Your task to perform on an android device: Search for the best rated wireless headphones on Amazon. Image 0: 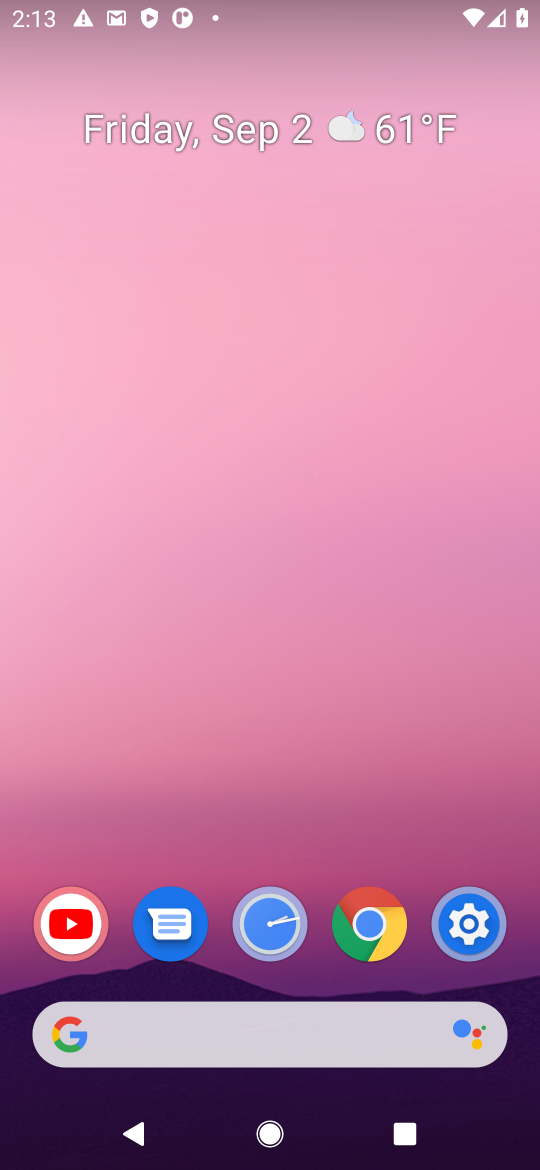
Step 0: press home button
Your task to perform on an android device: Search for the best rated wireless headphones on Amazon. Image 1: 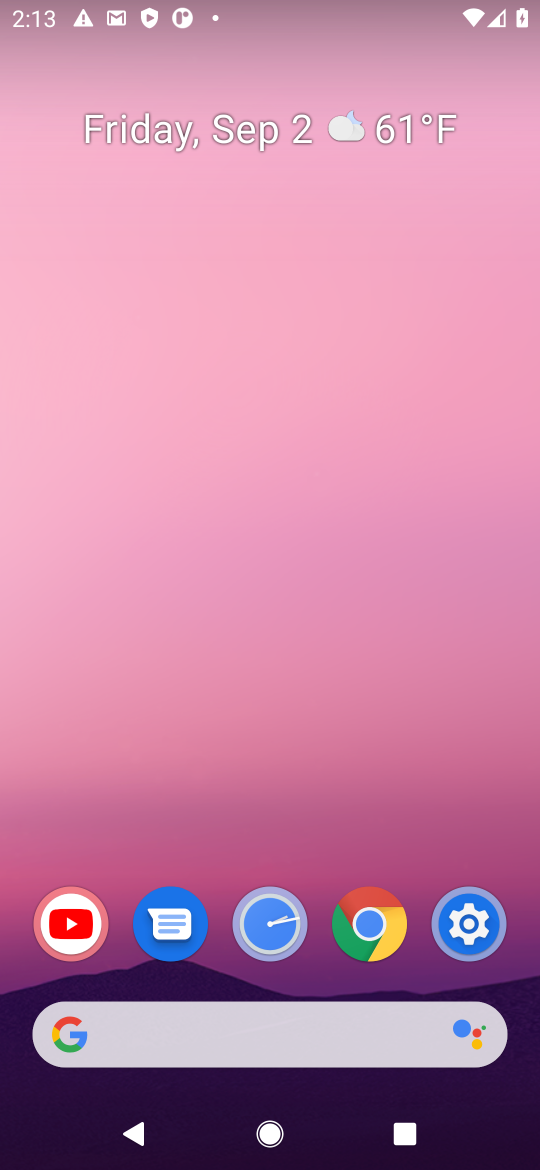
Step 1: click (399, 1037)
Your task to perform on an android device: Search for the best rated wireless headphones on Amazon. Image 2: 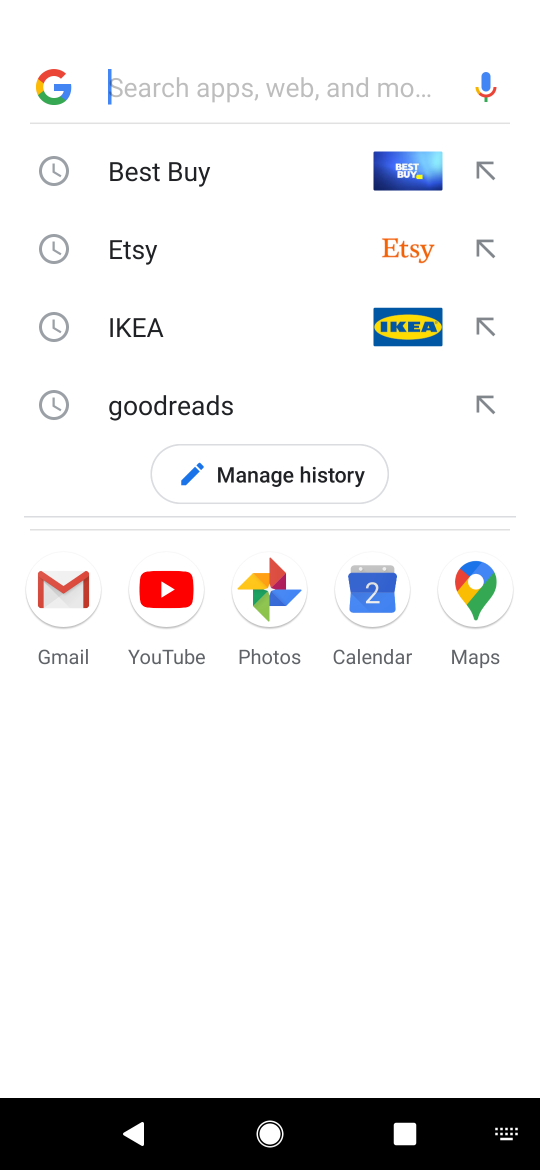
Step 2: press enter
Your task to perform on an android device: Search for the best rated wireless headphones on Amazon. Image 3: 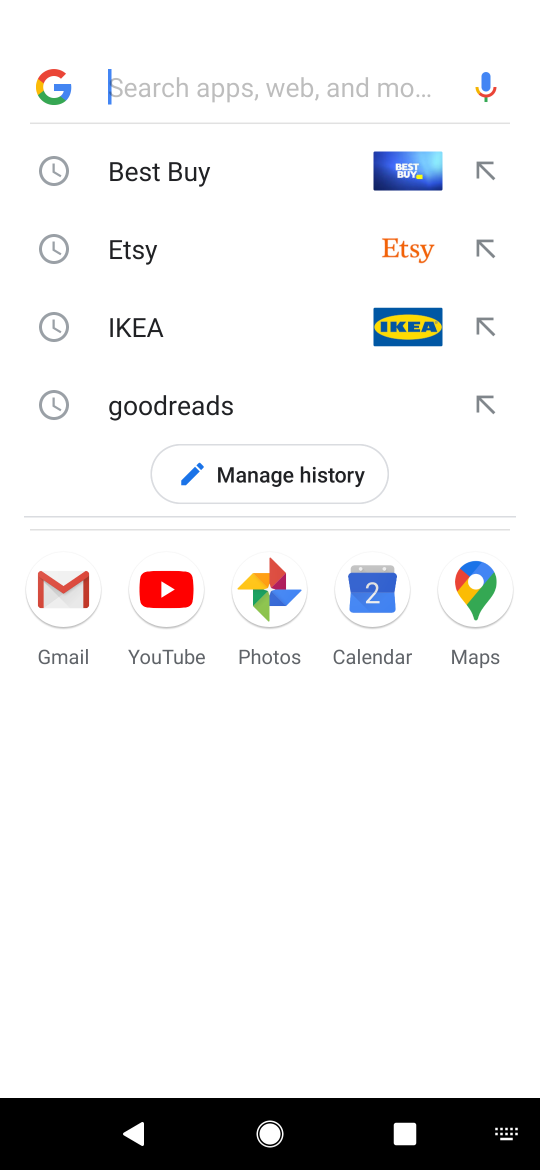
Step 3: type "amazon"
Your task to perform on an android device: Search for the best rated wireless headphones on Amazon. Image 4: 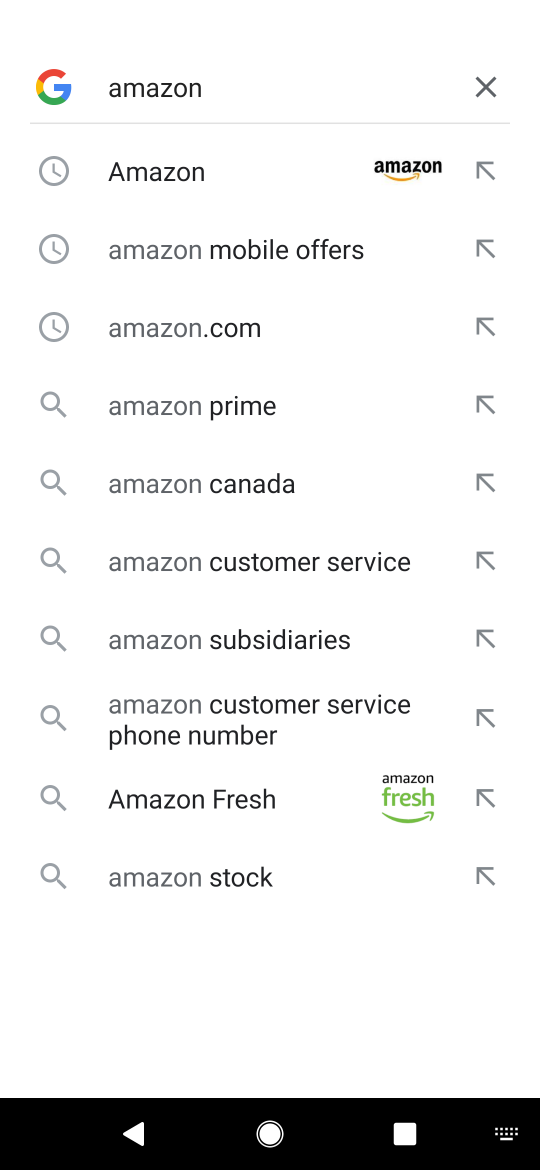
Step 4: click (209, 161)
Your task to perform on an android device: Search for the best rated wireless headphones on Amazon. Image 5: 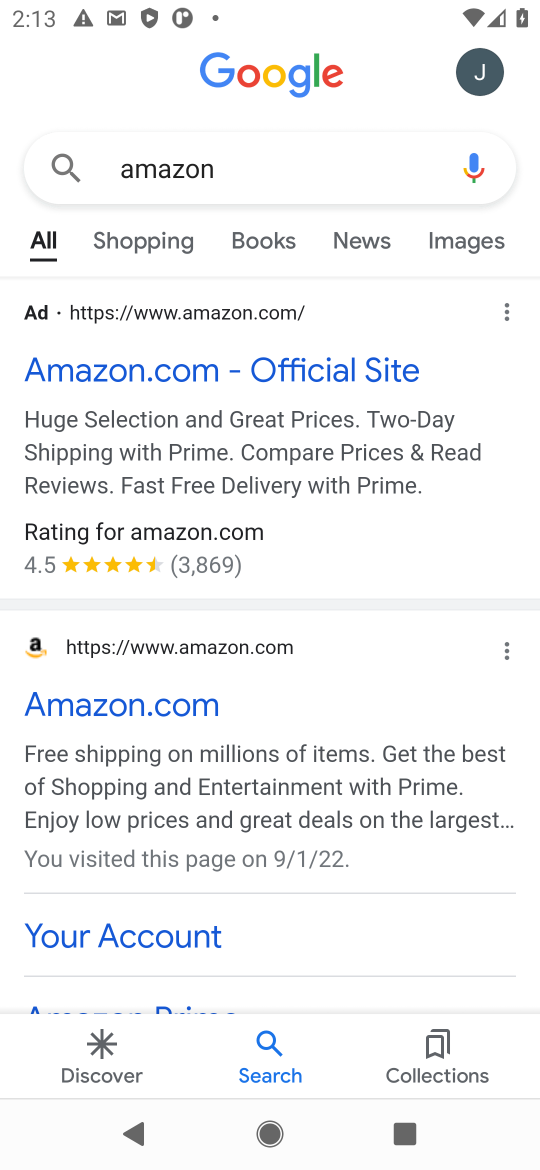
Step 5: click (324, 385)
Your task to perform on an android device: Search for the best rated wireless headphones on Amazon. Image 6: 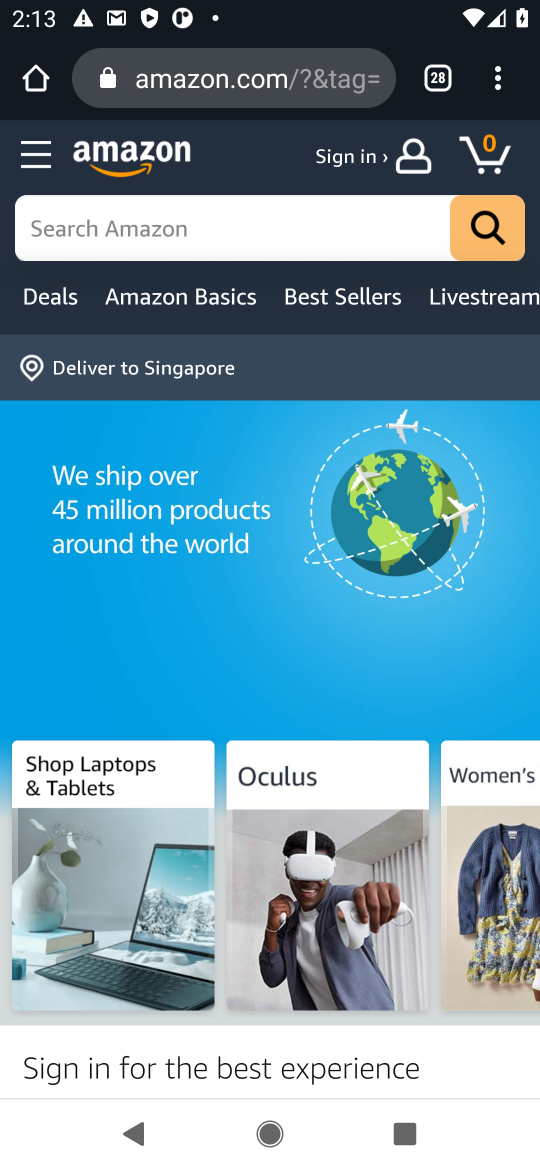
Step 6: click (261, 215)
Your task to perform on an android device: Search for the best rated wireless headphones on Amazon. Image 7: 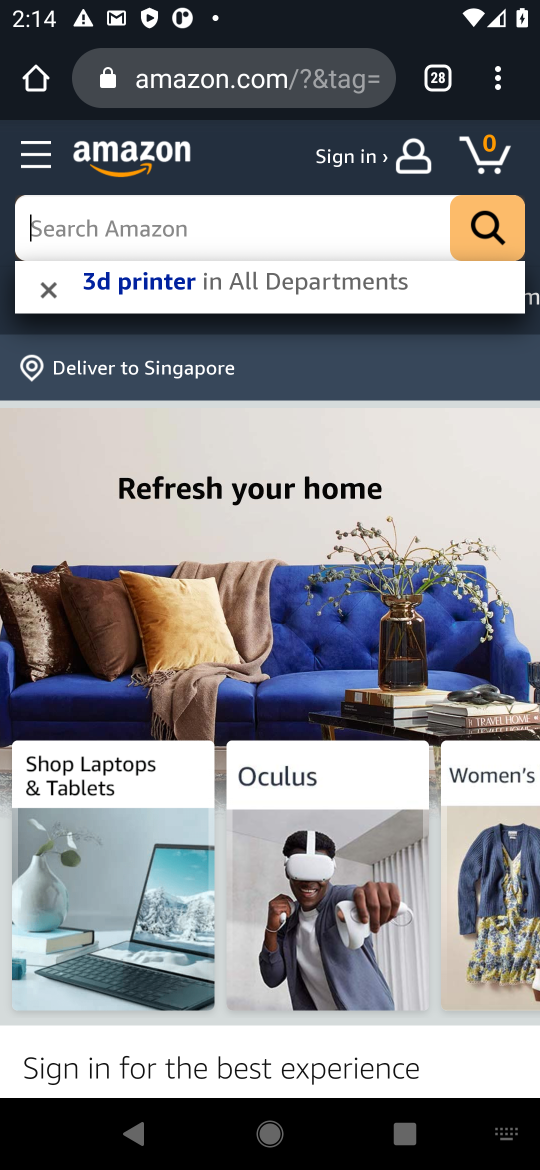
Step 7: type "wireless headphones"
Your task to perform on an android device: Search for the best rated wireless headphones on Amazon. Image 8: 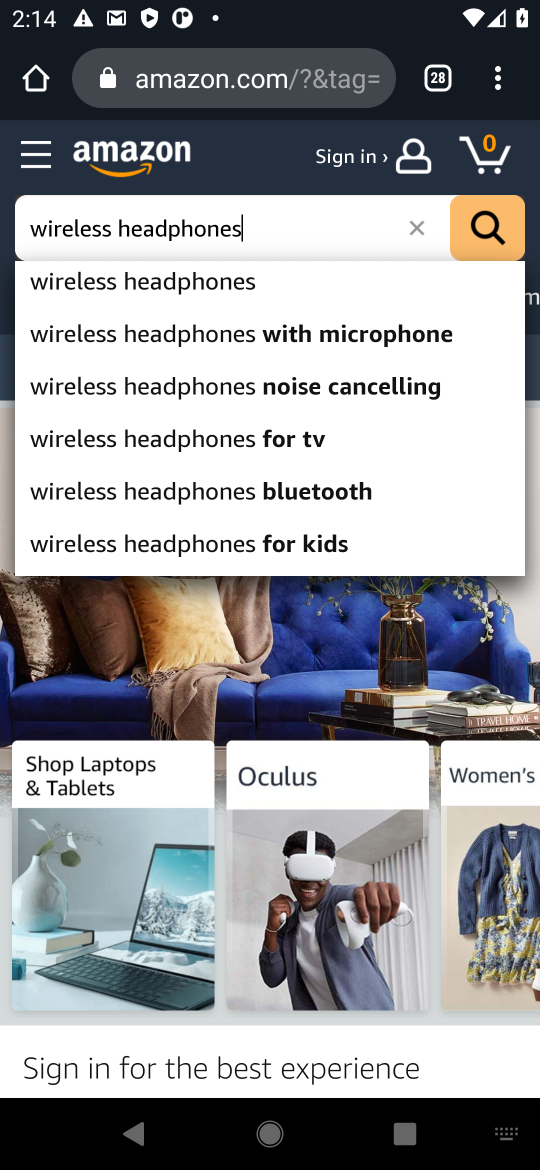
Step 8: click (237, 277)
Your task to perform on an android device: Search for the best rated wireless headphones on Amazon. Image 9: 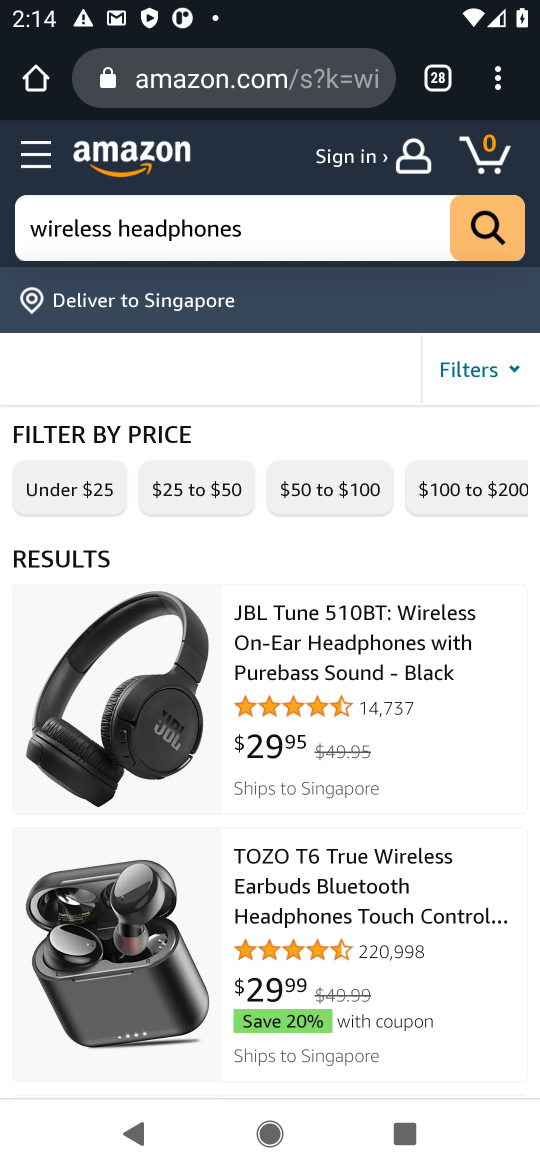
Step 9: task complete